Your task to perform on an android device: turn on sleep mode Image 0: 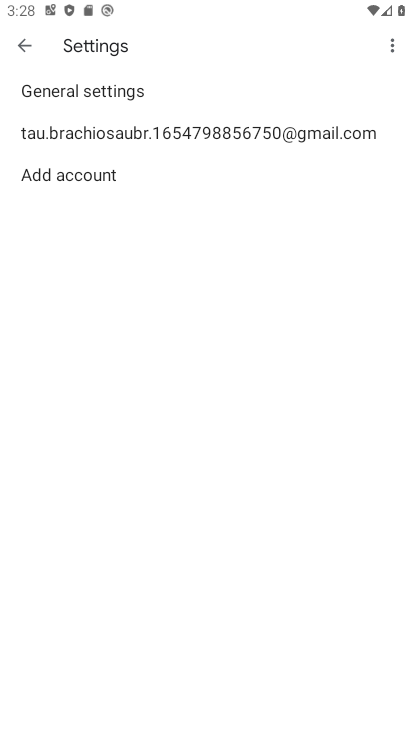
Step 0: press home button
Your task to perform on an android device: turn on sleep mode Image 1: 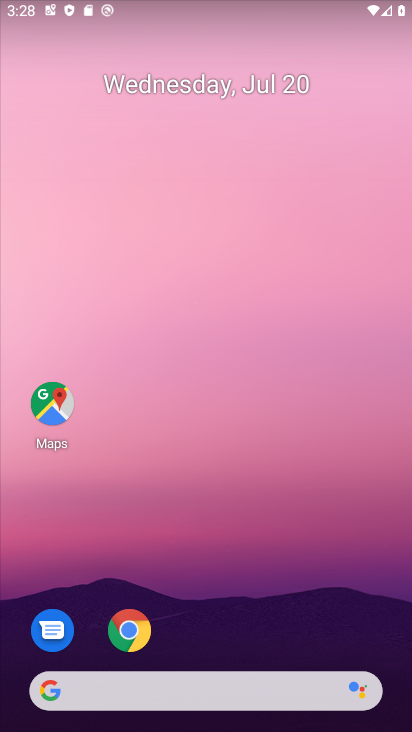
Step 1: drag from (235, 605) to (247, 229)
Your task to perform on an android device: turn on sleep mode Image 2: 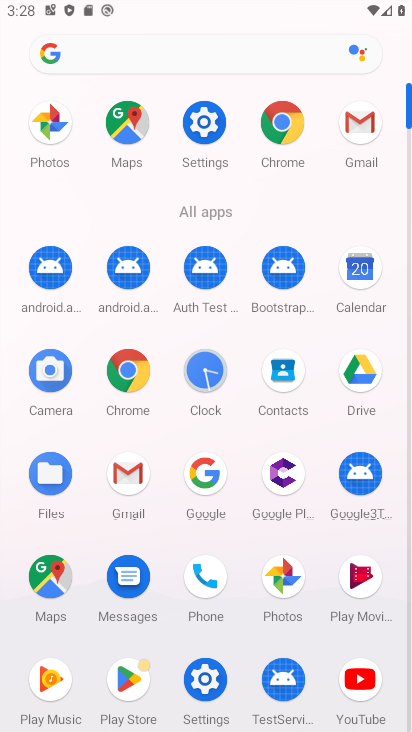
Step 2: click (200, 118)
Your task to perform on an android device: turn on sleep mode Image 3: 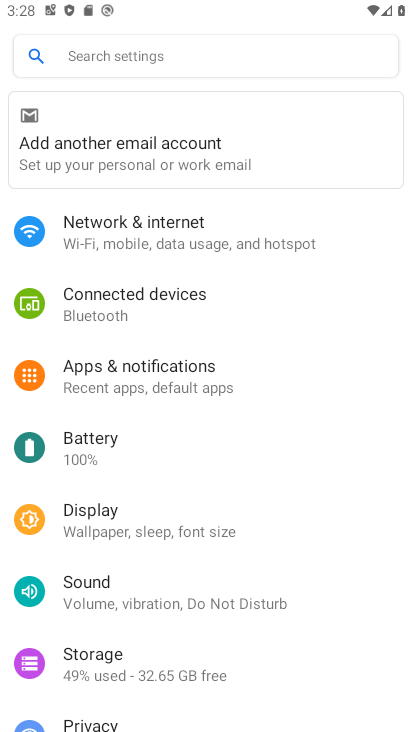
Step 3: click (121, 509)
Your task to perform on an android device: turn on sleep mode Image 4: 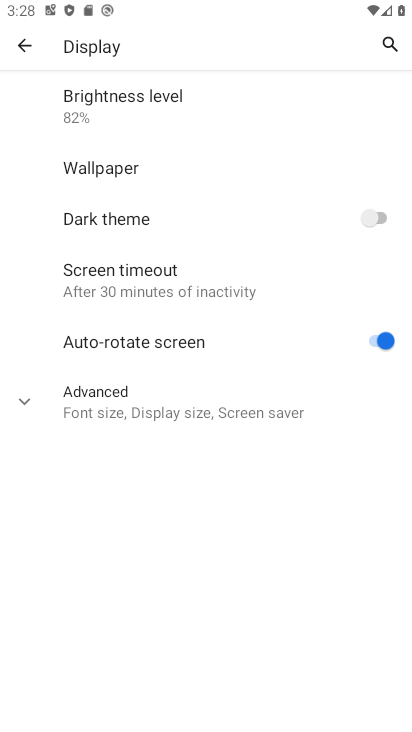
Step 4: click (25, 396)
Your task to perform on an android device: turn on sleep mode Image 5: 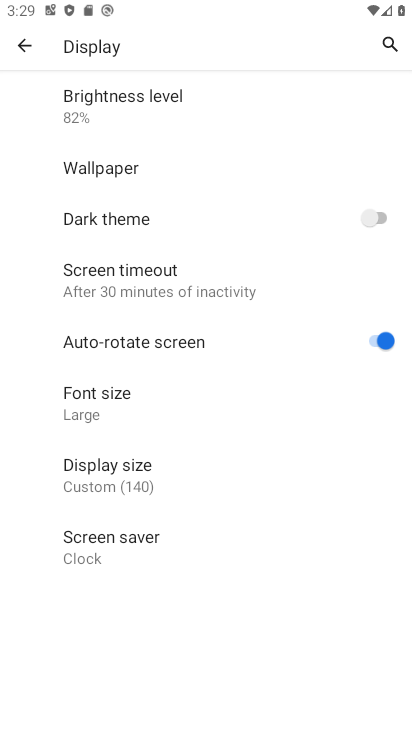
Step 5: task complete